Your task to perform on an android device: open a bookmark in the chrome app Image 0: 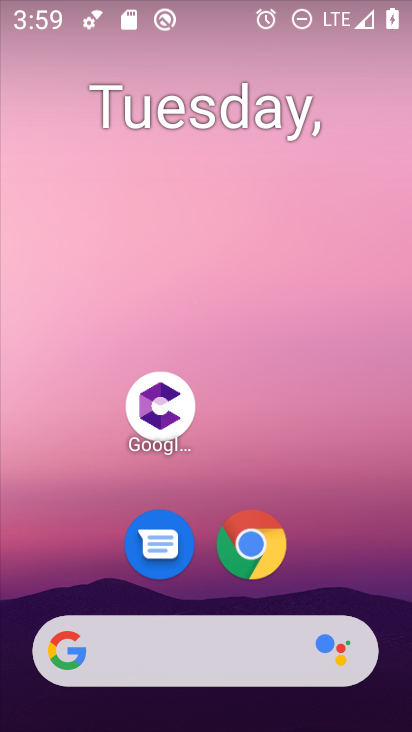
Step 0: drag from (366, 584) to (380, 162)
Your task to perform on an android device: open a bookmark in the chrome app Image 1: 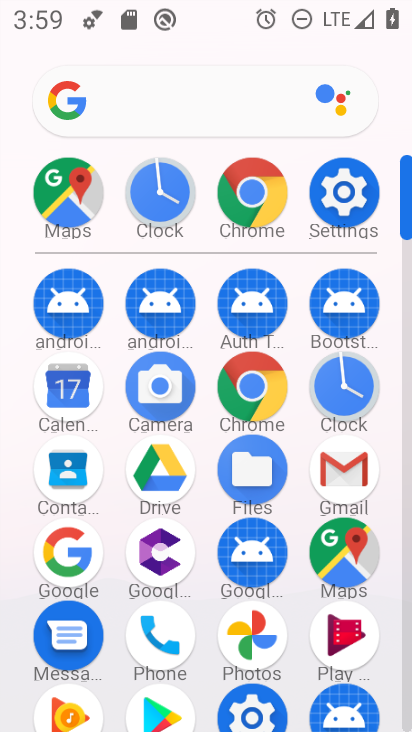
Step 1: click (282, 392)
Your task to perform on an android device: open a bookmark in the chrome app Image 2: 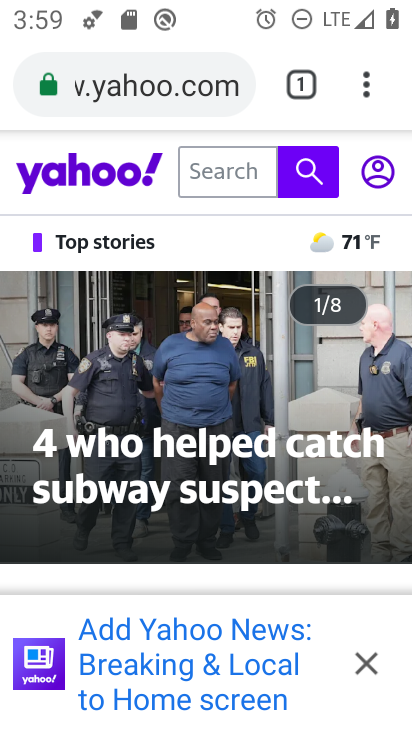
Step 2: click (367, 91)
Your task to perform on an android device: open a bookmark in the chrome app Image 3: 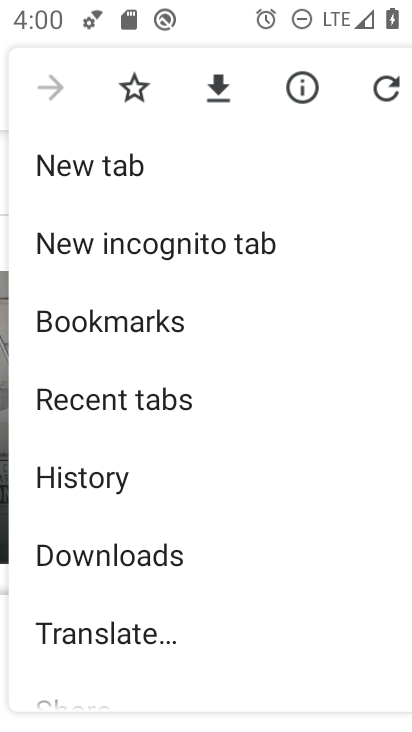
Step 3: drag from (282, 554) to (298, 383)
Your task to perform on an android device: open a bookmark in the chrome app Image 4: 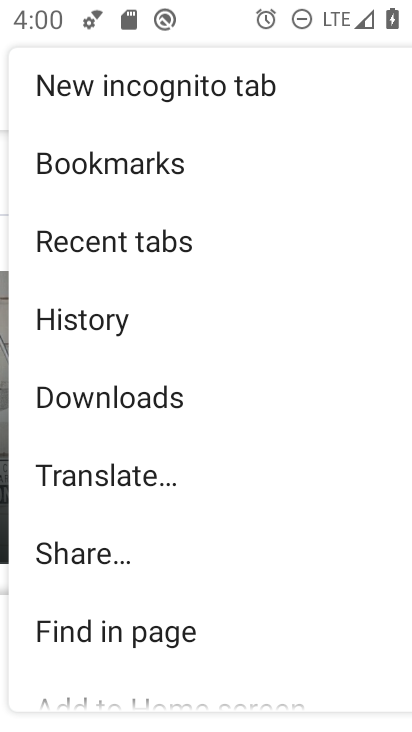
Step 4: drag from (271, 520) to (268, 380)
Your task to perform on an android device: open a bookmark in the chrome app Image 5: 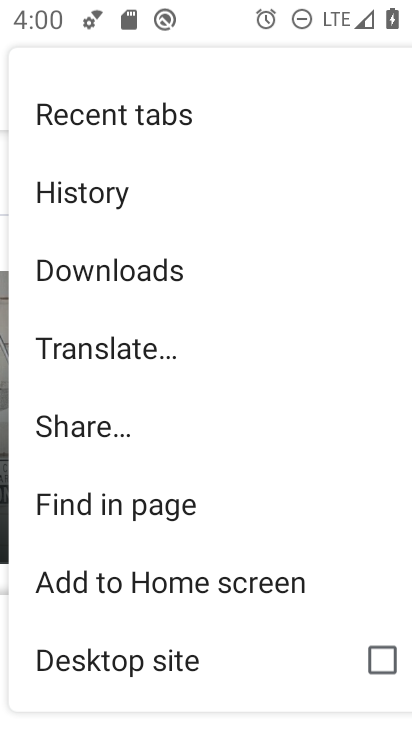
Step 5: drag from (272, 530) to (265, 391)
Your task to perform on an android device: open a bookmark in the chrome app Image 6: 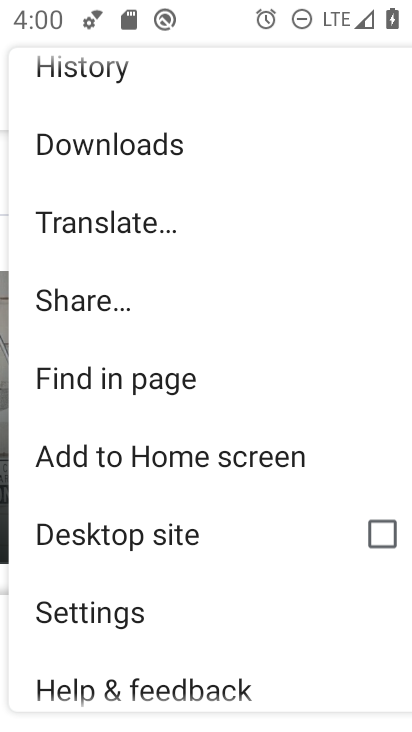
Step 6: drag from (258, 567) to (257, 472)
Your task to perform on an android device: open a bookmark in the chrome app Image 7: 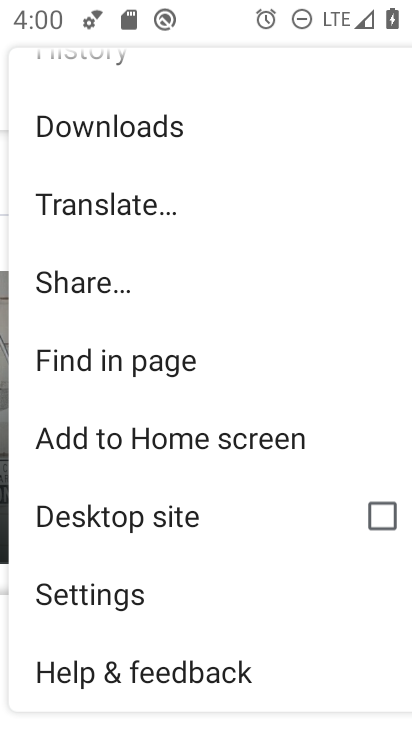
Step 7: drag from (279, 303) to (268, 439)
Your task to perform on an android device: open a bookmark in the chrome app Image 8: 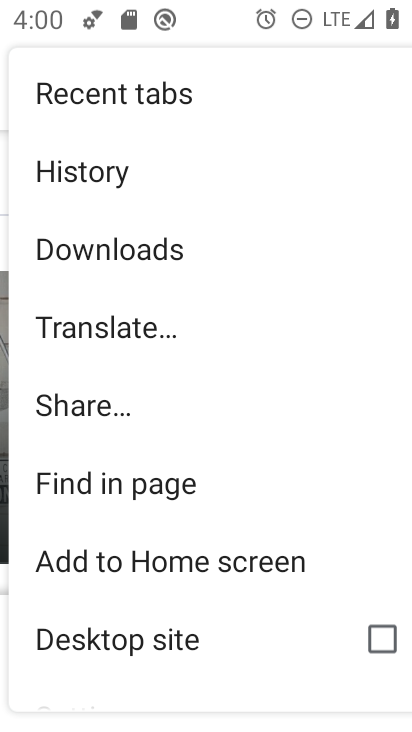
Step 8: drag from (266, 284) to (243, 409)
Your task to perform on an android device: open a bookmark in the chrome app Image 9: 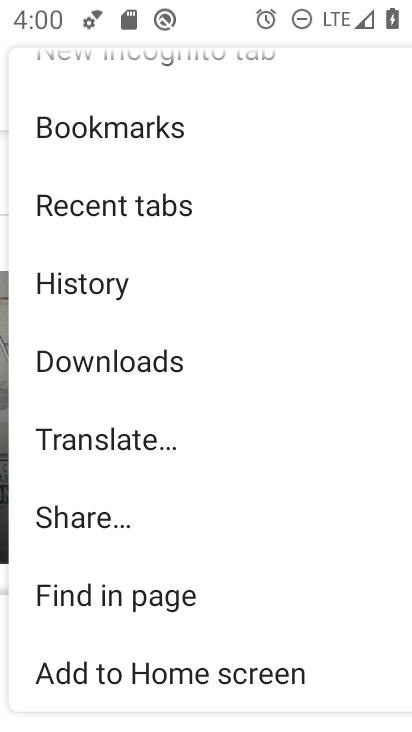
Step 9: drag from (255, 219) to (253, 329)
Your task to perform on an android device: open a bookmark in the chrome app Image 10: 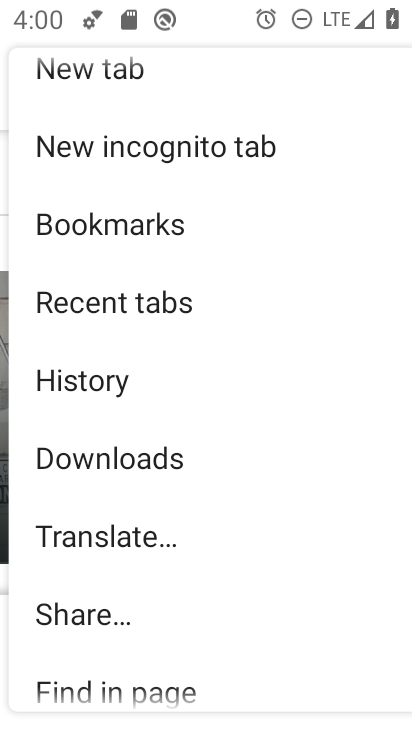
Step 10: click (185, 225)
Your task to perform on an android device: open a bookmark in the chrome app Image 11: 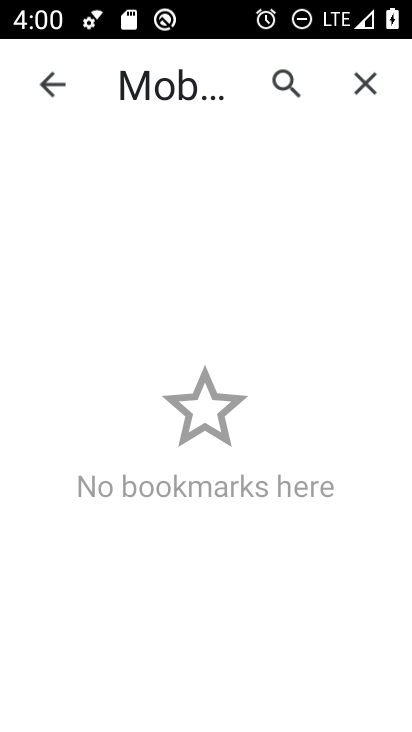
Step 11: task complete